Your task to perform on an android device: Open Amazon Image 0: 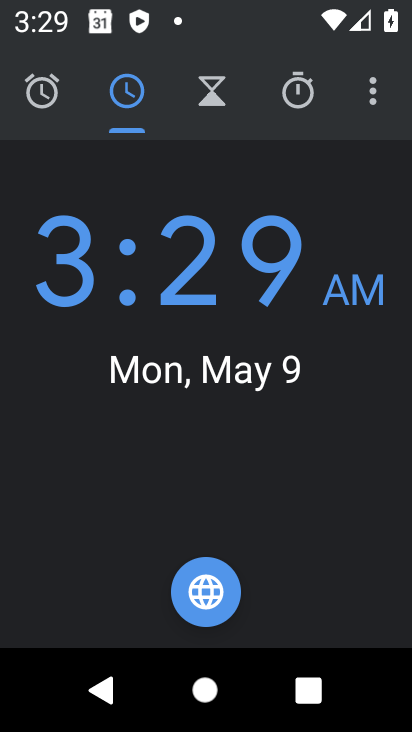
Step 0: press home button
Your task to perform on an android device: Open Amazon Image 1: 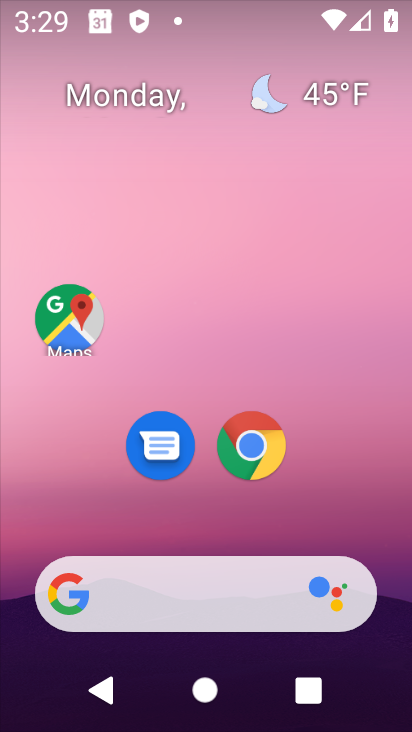
Step 1: click (256, 457)
Your task to perform on an android device: Open Amazon Image 2: 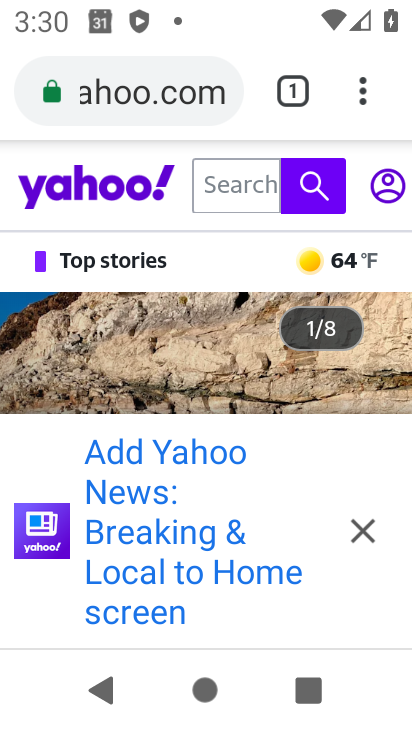
Step 2: click (214, 91)
Your task to perform on an android device: Open Amazon Image 3: 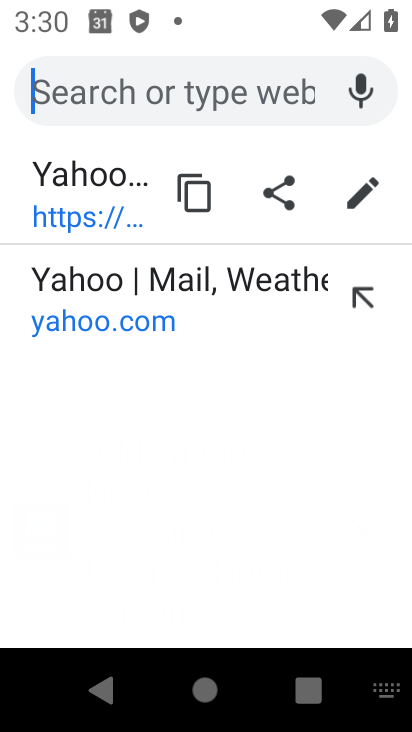
Step 3: type "amazon.com"
Your task to perform on an android device: Open Amazon Image 4: 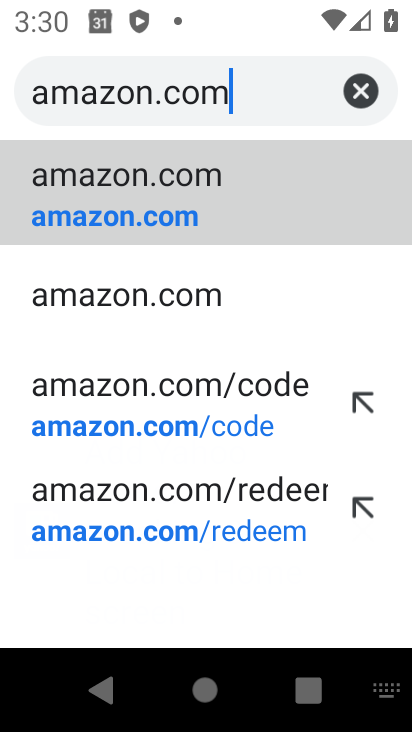
Step 4: click (163, 206)
Your task to perform on an android device: Open Amazon Image 5: 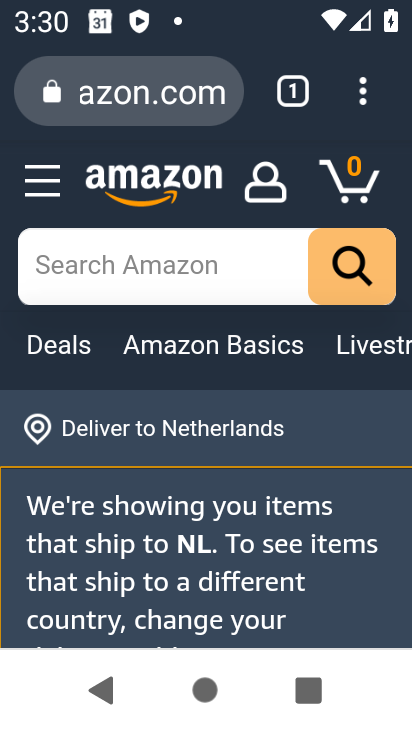
Step 5: task complete